Your task to perform on an android device: turn pop-ups off in chrome Image 0: 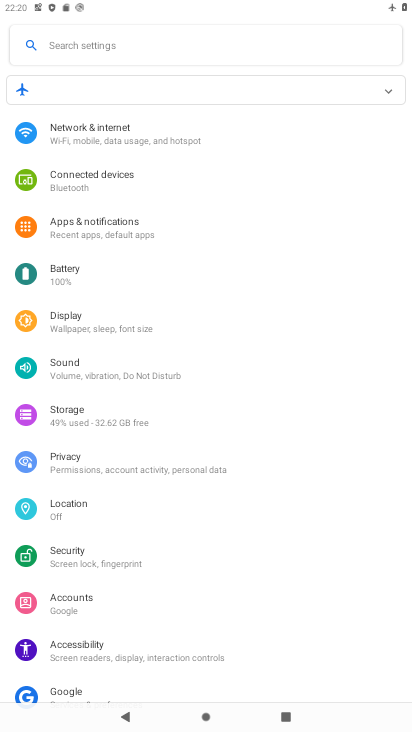
Step 0: press home button
Your task to perform on an android device: turn pop-ups off in chrome Image 1: 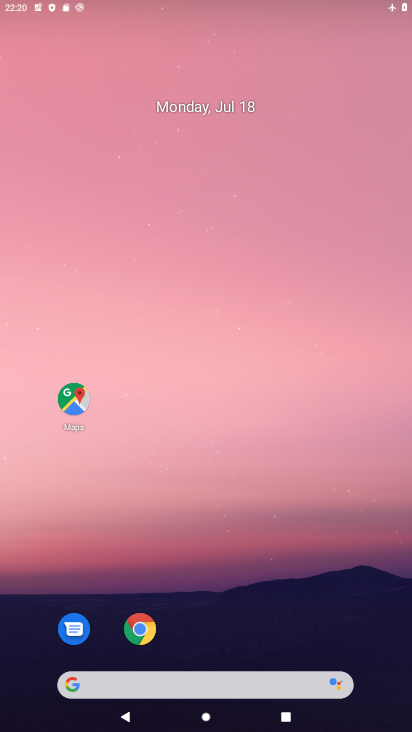
Step 1: drag from (220, 582) to (267, 34)
Your task to perform on an android device: turn pop-ups off in chrome Image 2: 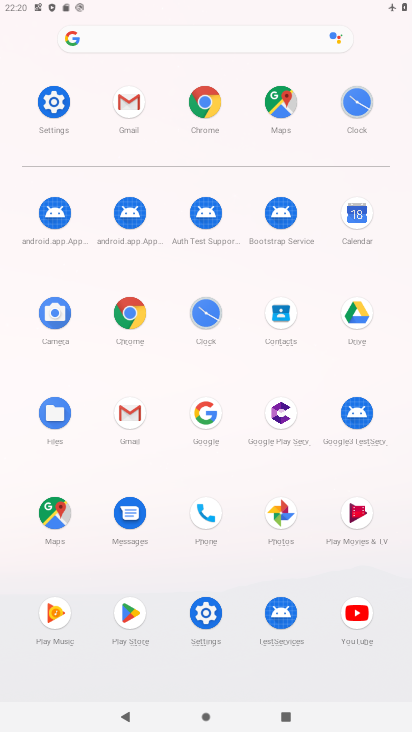
Step 2: click (209, 97)
Your task to perform on an android device: turn pop-ups off in chrome Image 3: 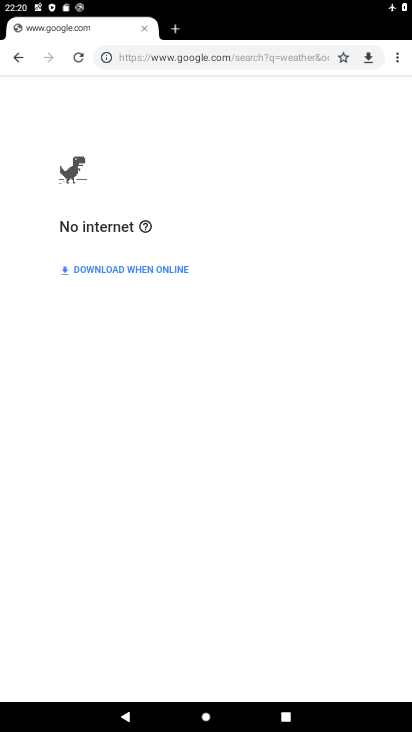
Step 3: drag from (395, 54) to (289, 393)
Your task to perform on an android device: turn pop-ups off in chrome Image 4: 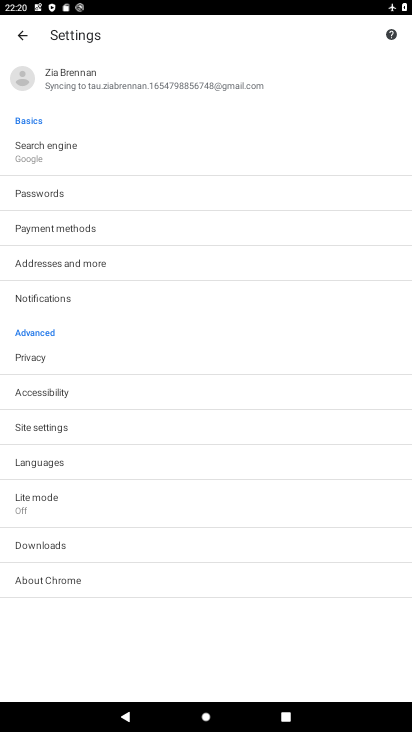
Step 4: click (48, 428)
Your task to perform on an android device: turn pop-ups off in chrome Image 5: 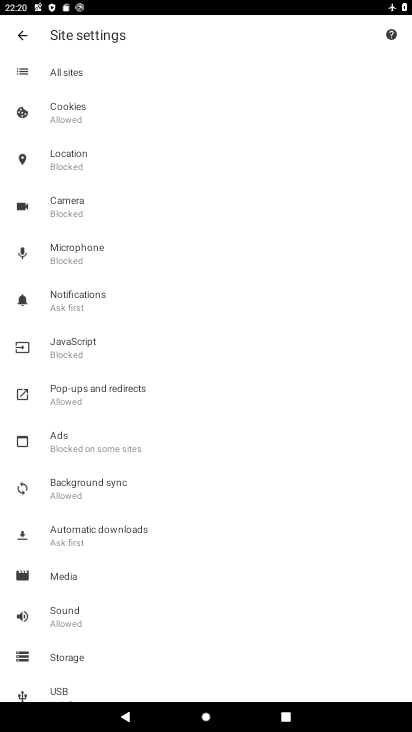
Step 5: click (116, 398)
Your task to perform on an android device: turn pop-ups off in chrome Image 6: 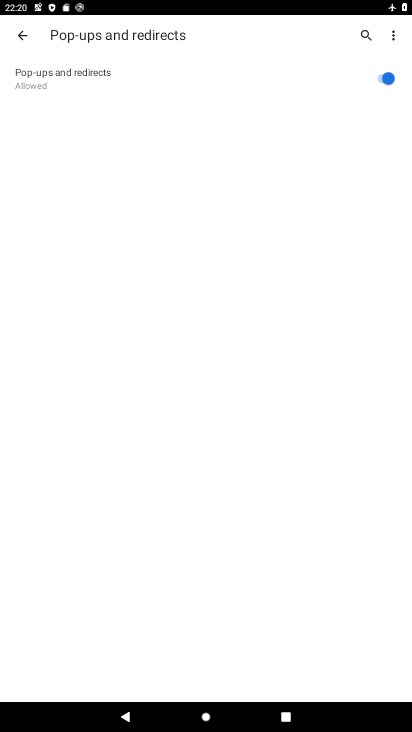
Step 6: click (388, 77)
Your task to perform on an android device: turn pop-ups off in chrome Image 7: 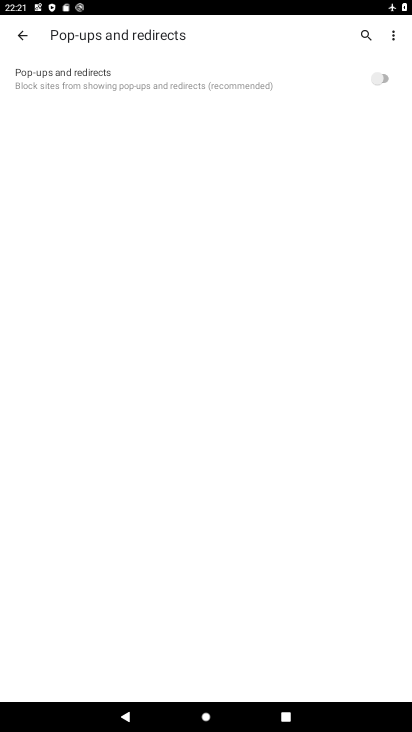
Step 7: task complete